Your task to perform on an android device: refresh tabs in the chrome app Image 0: 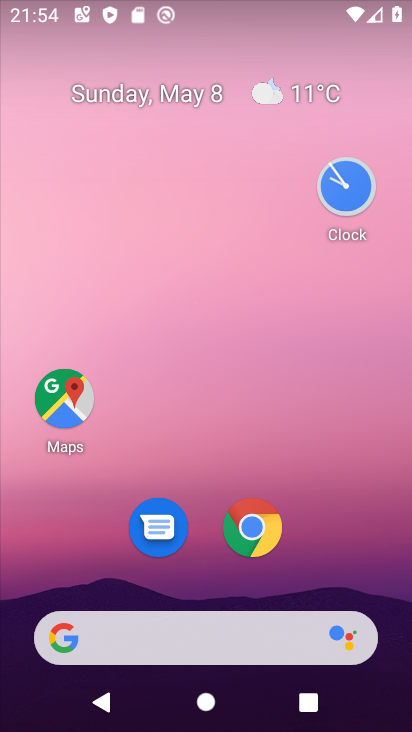
Step 0: click (261, 532)
Your task to perform on an android device: refresh tabs in the chrome app Image 1: 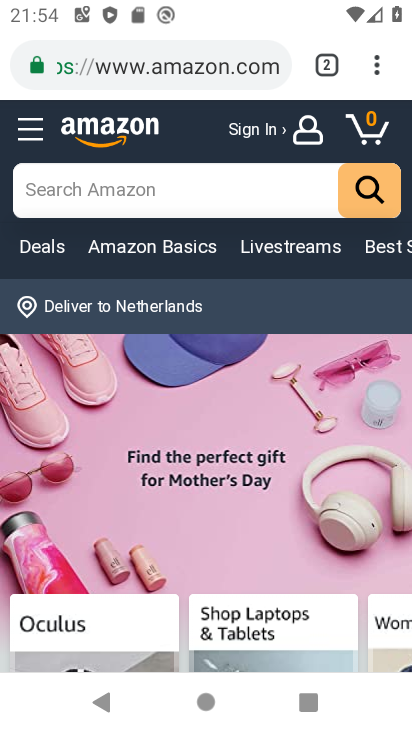
Step 1: click (377, 54)
Your task to perform on an android device: refresh tabs in the chrome app Image 2: 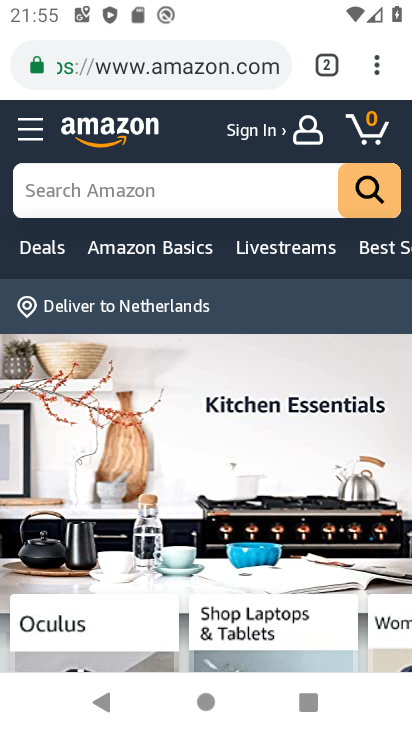
Step 2: task complete